Your task to perform on an android device: turn off airplane mode Image 0: 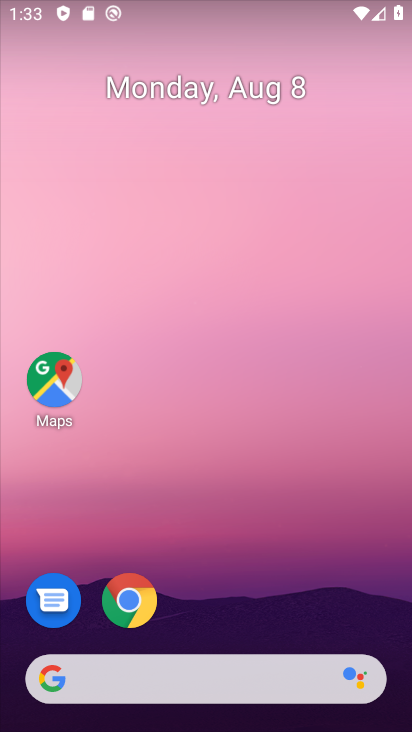
Step 0: press home button
Your task to perform on an android device: turn off airplane mode Image 1: 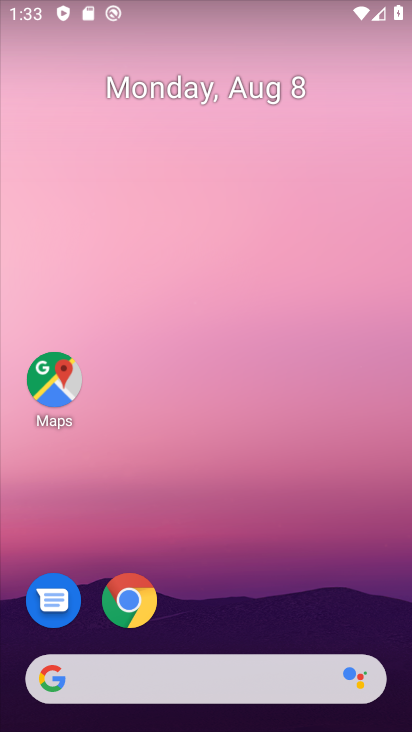
Step 1: task complete